Your task to perform on an android device: See recent photos Image 0: 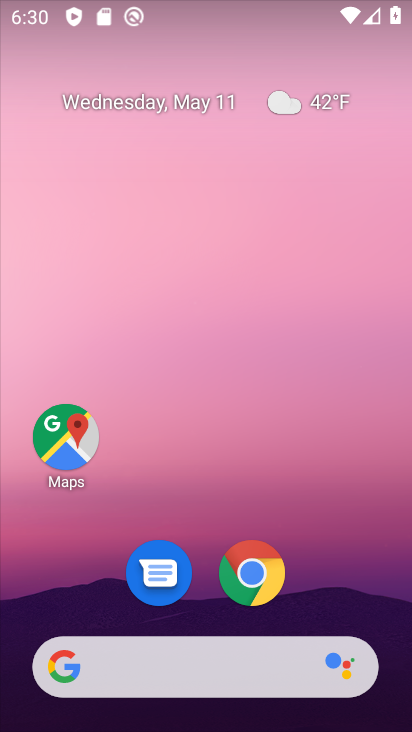
Step 0: drag from (306, 318) to (297, 243)
Your task to perform on an android device: See recent photos Image 1: 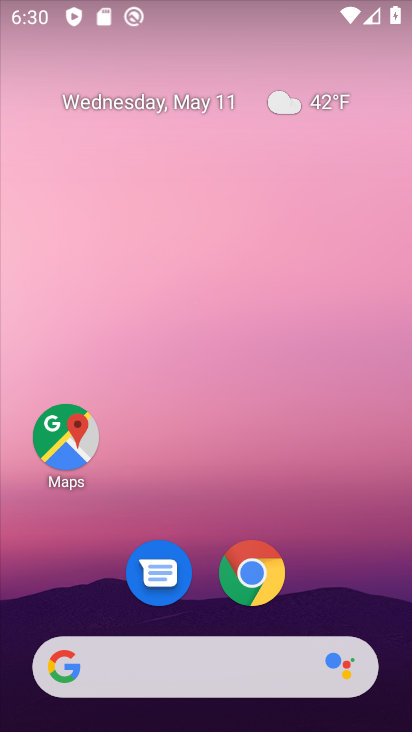
Step 1: drag from (312, 599) to (274, 113)
Your task to perform on an android device: See recent photos Image 2: 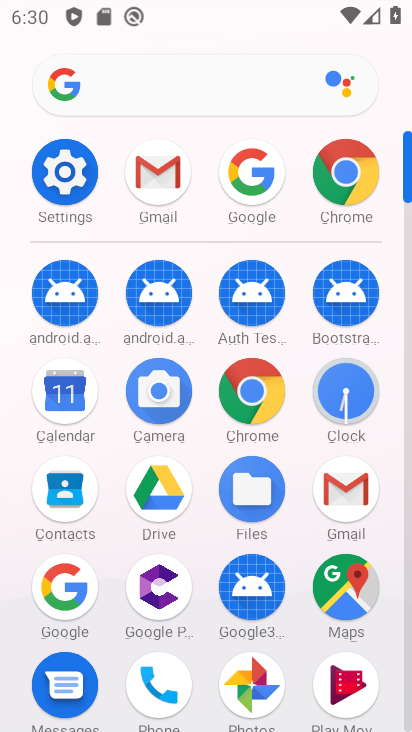
Step 2: drag from (310, 557) to (330, 378)
Your task to perform on an android device: See recent photos Image 3: 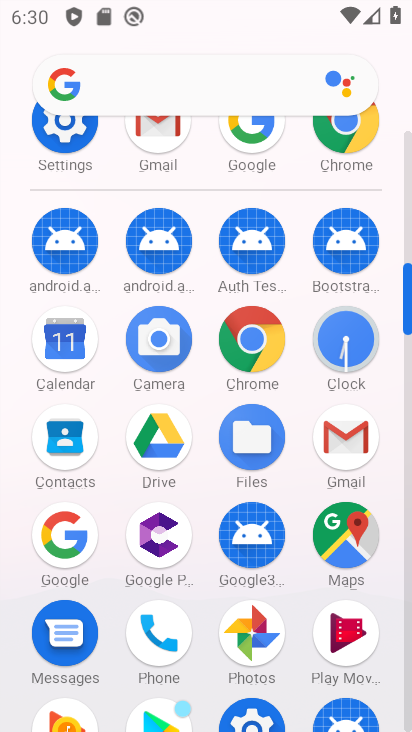
Step 3: click (247, 648)
Your task to perform on an android device: See recent photos Image 4: 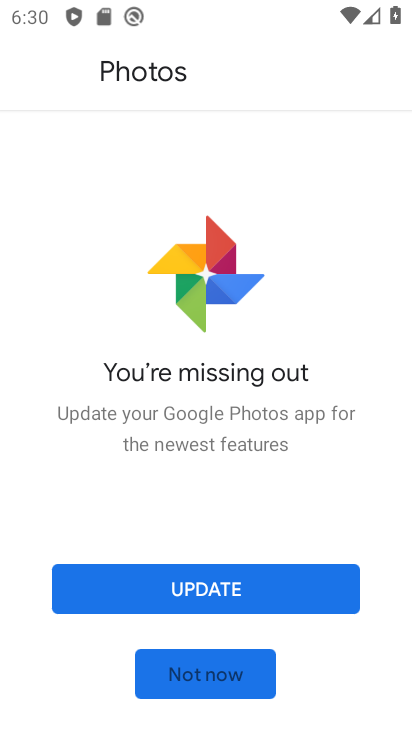
Step 4: click (229, 681)
Your task to perform on an android device: See recent photos Image 5: 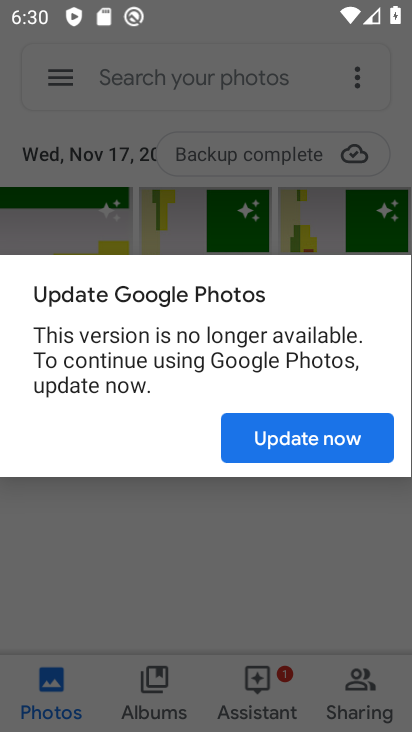
Step 5: click (278, 437)
Your task to perform on an android device: See recent photos Image 6: 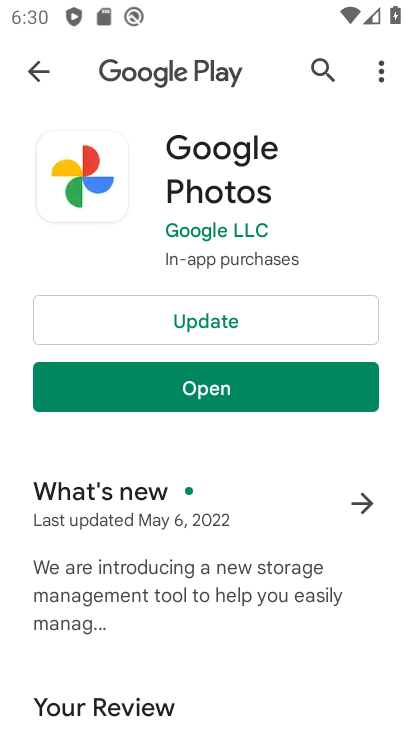
Step 6: click (198, 368)
Your task to perform on an android device: See recent photos Image 7: 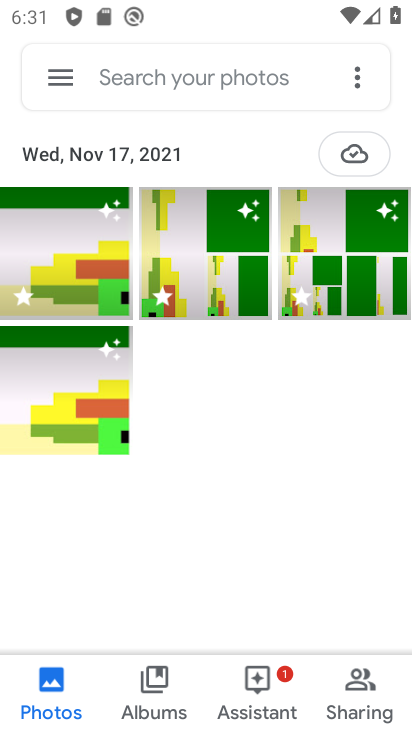
Step 7: click (142, 72)
Your task to perform on an android device: See recent photos Image 8: 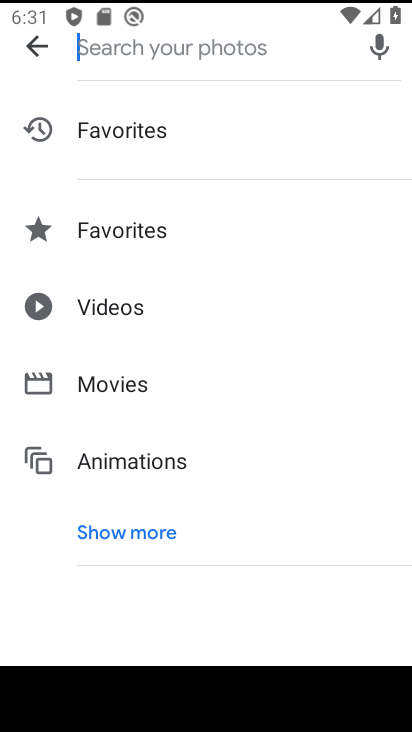
Step 8: task complete